Your task to perform on an android device: Show me popular videos on Youtube Image 0: 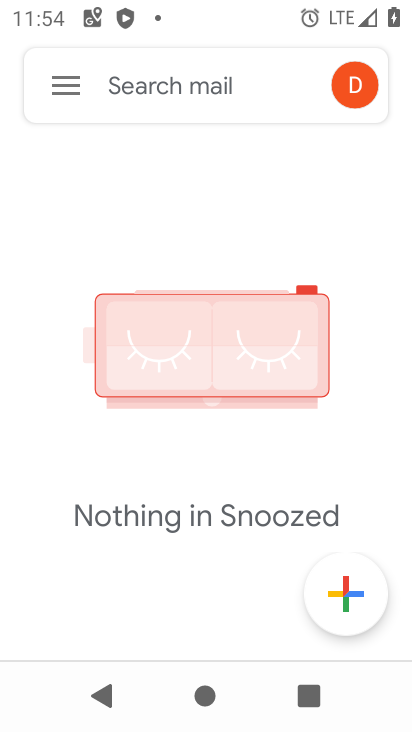
Step 0: drag from (248, 447) to (295, 156)
Your task to perform on an android device: Show me popular videos on Youtube Image 1: 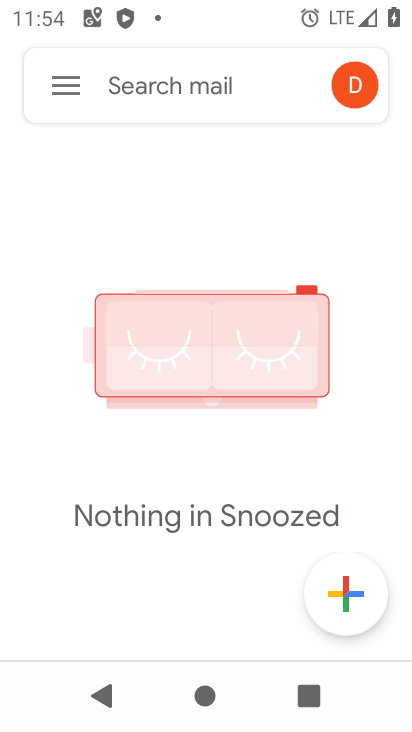
Step 1: press home button
Your task to perform on an android device: Show me popular videos on Youtube Image 2: 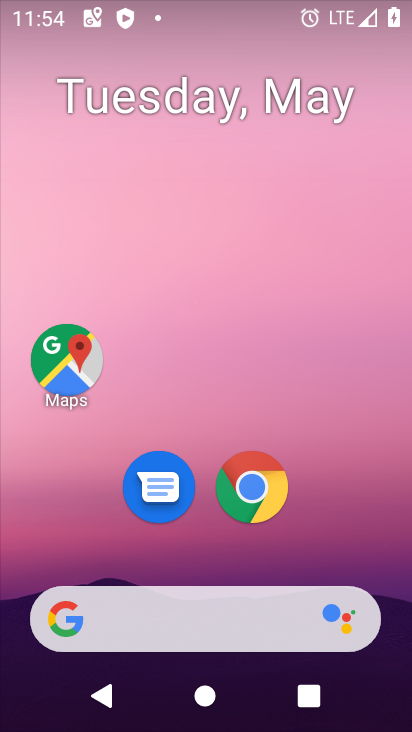
Step 2: drag from (218, 556) to (242, 140)
Your task to perform on an android device: Show me popular videos on Youtube Image 3: 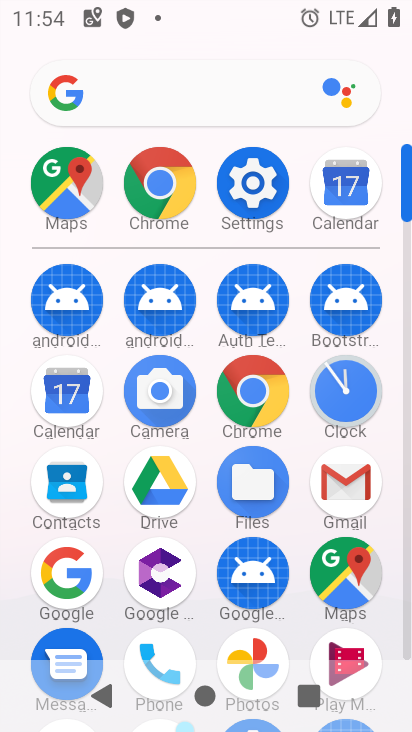
Step 3: drag from (205, 615) to (219, 223)
Your task to perform on an android device: Show me popular videos on Youtube Image 4: 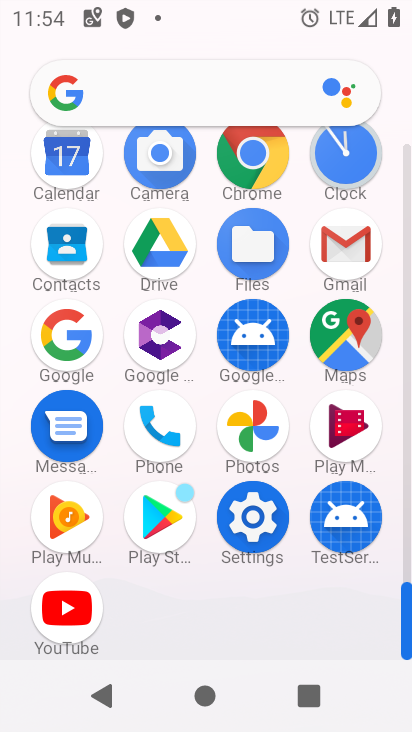
Step 4: click (76, 597)
Your task to perform on an android device: Show me popular videos on Youtube Image 5: 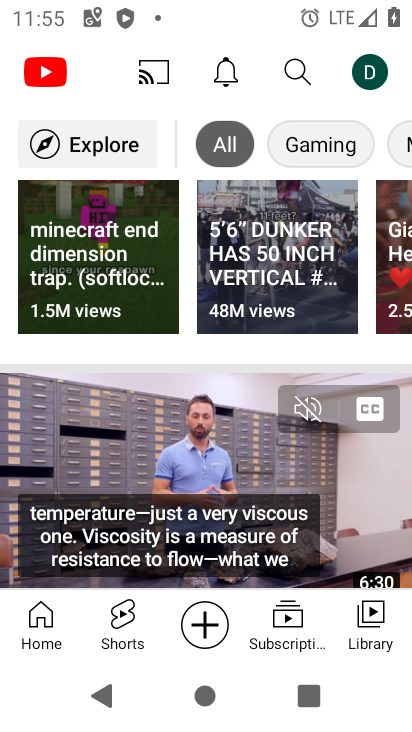
Step 5: task complete